Your task to perform on an android device: Open wifi settings Image 0: 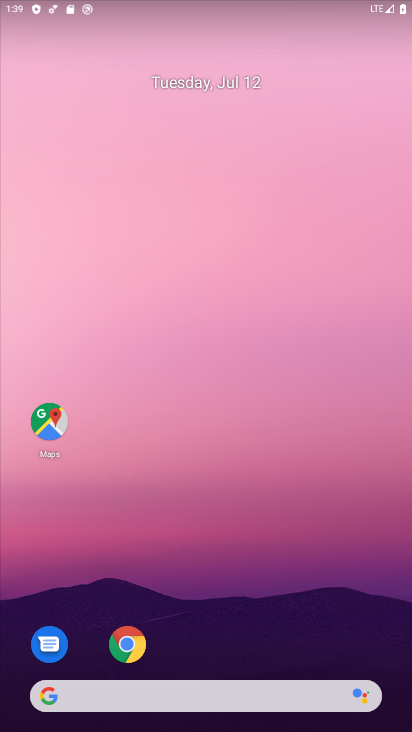
Step 0: drag from (200, 669) to (147, 104)
Your task to perform on an android device: Open wifi settings Image 1: 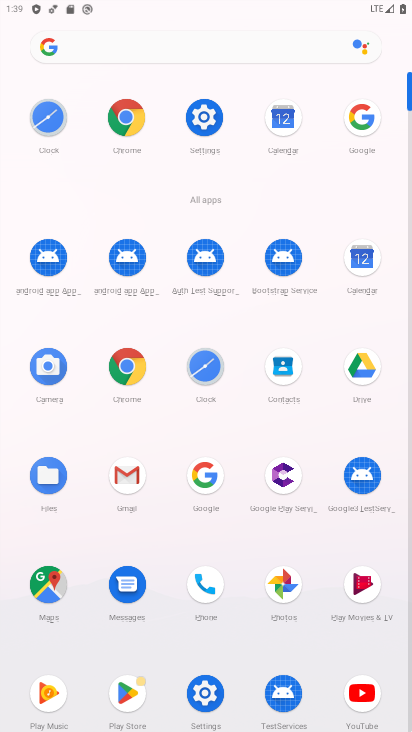
Step 1: click (218, 692)
Your task to perform on an android device: Open wifi settings Image 2: 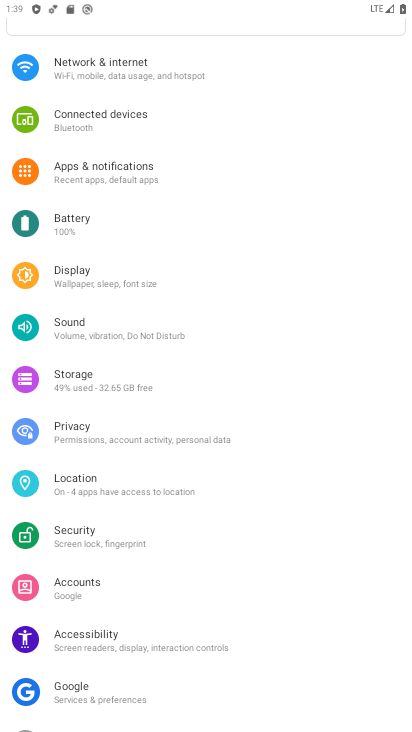
Step 2: click (70, 79)
Your task to perform on an android device: Open wifi settings Image 3: 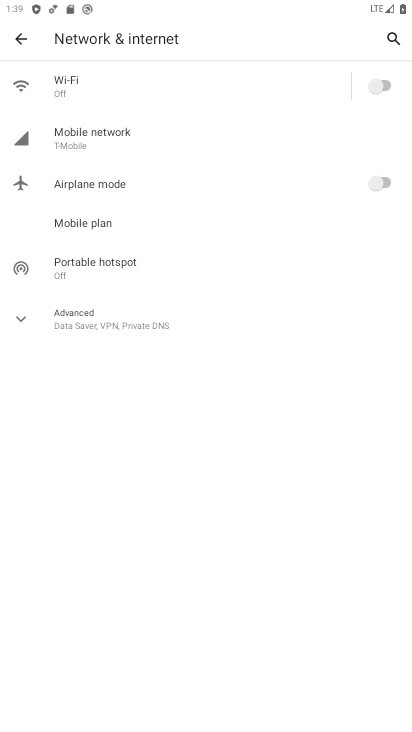
Step 3: click (47, 94)
Your task to perform on an android device: Open wifi settings Image 4: 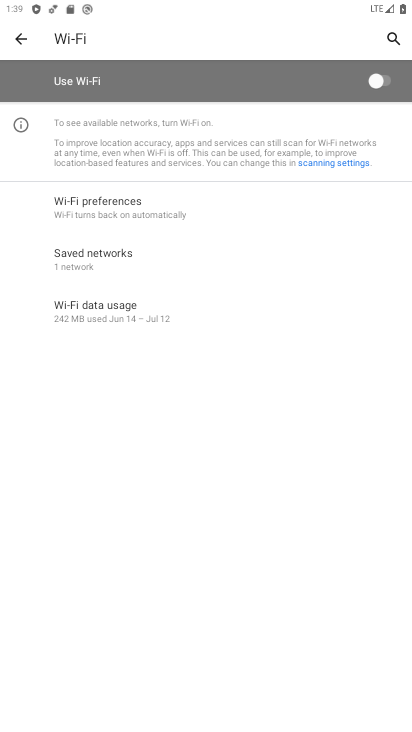
Step 4: task complete